Your task to perform on an android device: manage bookmarks in the chrome app Image 0: 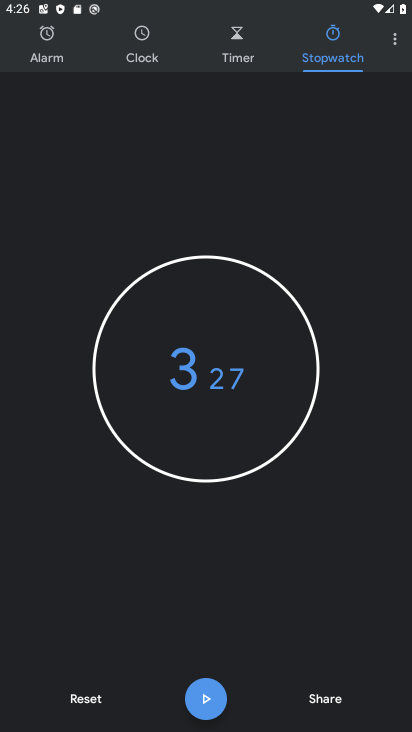
Step 0: press home button
Your task to perform on an android device: manage bookmarks in the chrome app Image 1: 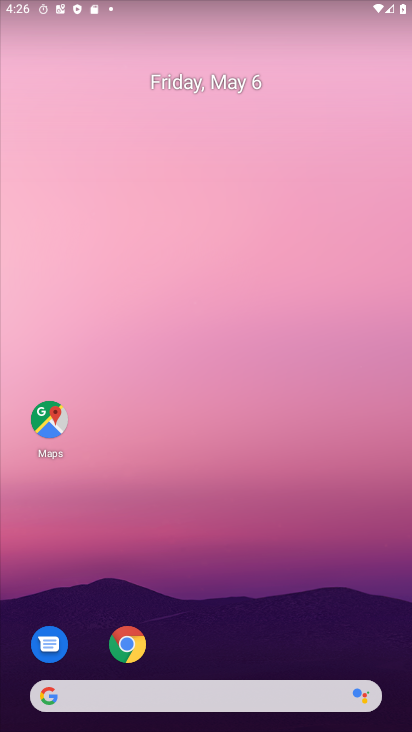
Step 1: drag from (296, 640) to (150, 214)
Your task to perform on an android device: manage bookmarks in the chrome app Image 2: 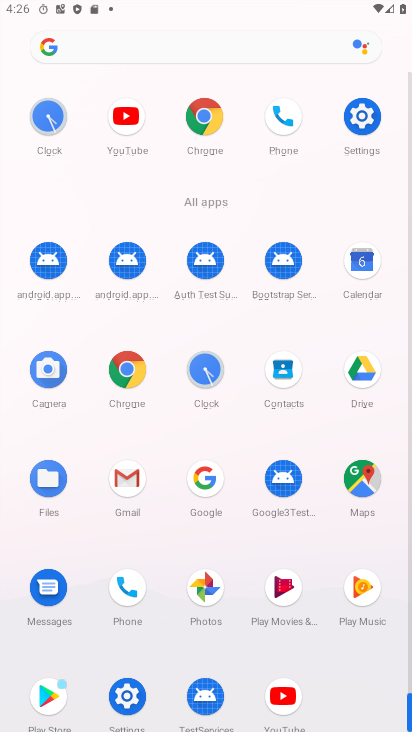
Step 2: click (200, 104)
Your task to perform on an android device: manage bookmarks in the chrome app Image 3: 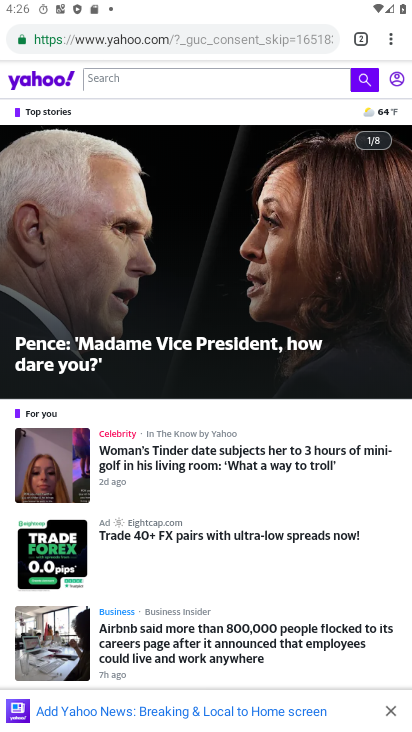
Step 3: task complete